Your task to perform on an android device: turn off notifications in google photos Image 0: 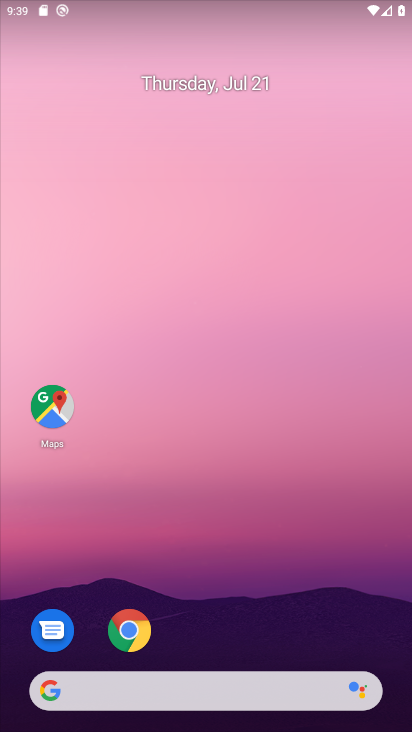
Step 0: drag from (262, 611) to (311, 2)
Your task to perform on an android device: turn off notifications in google photos Image 1: 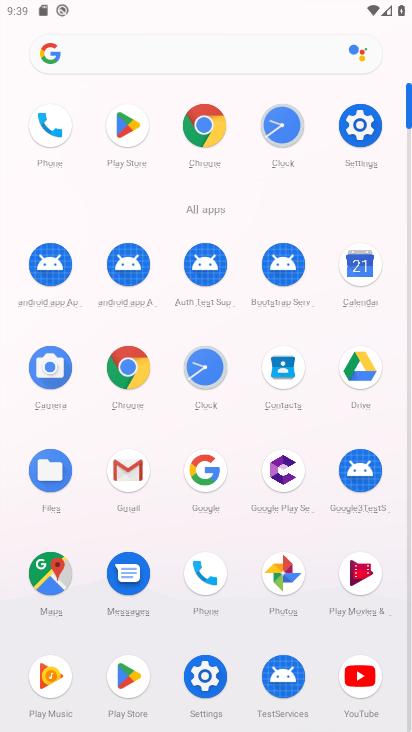
Step 1: click (291, 572)
Your task to perform on an android device: turn off notifications in google photos Image 2: 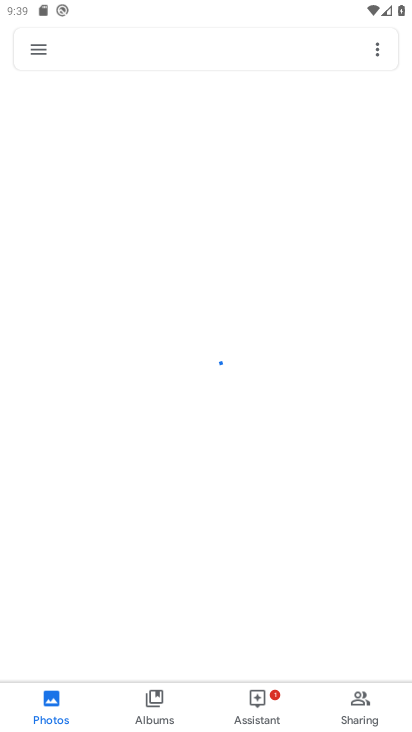
Step 2: click (41, 45)
Your task to perform on an android device: turn off notifications in google photos Image 3: 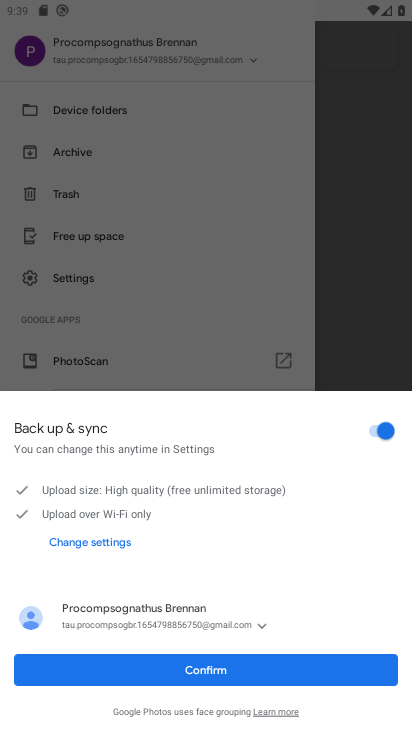
Step 3: click (214, 658)
Your task to perform on an android device: turn off notifications in google photos Image 4: 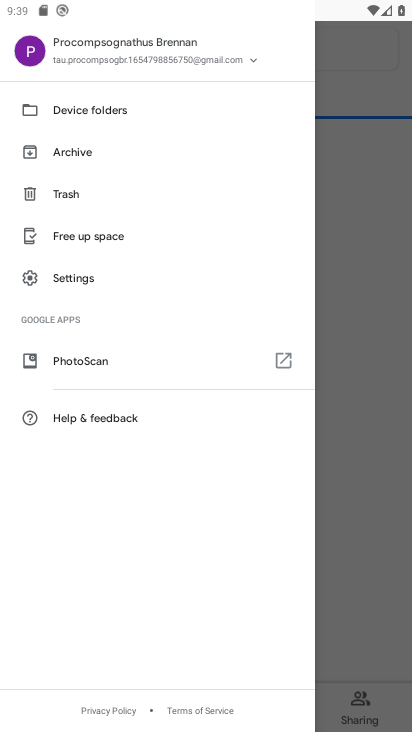
Step 4: click (122, 279)
Your task to perform on an android device: turn off notifications in google photos Image 5: 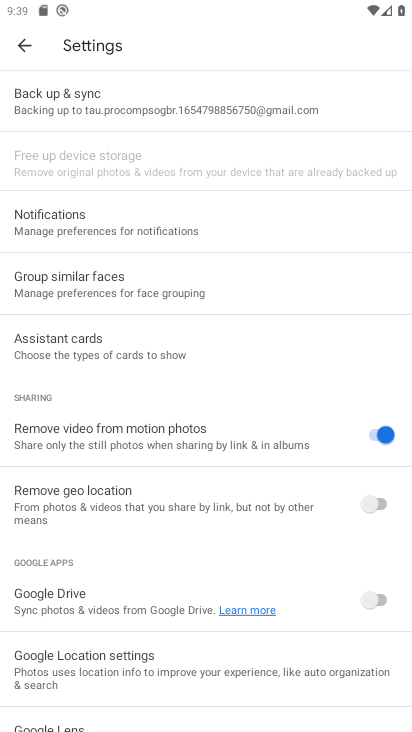
Step 5: click (159, 220)
Your task to perform on an android device: turn off notifications in google photos Image 6: 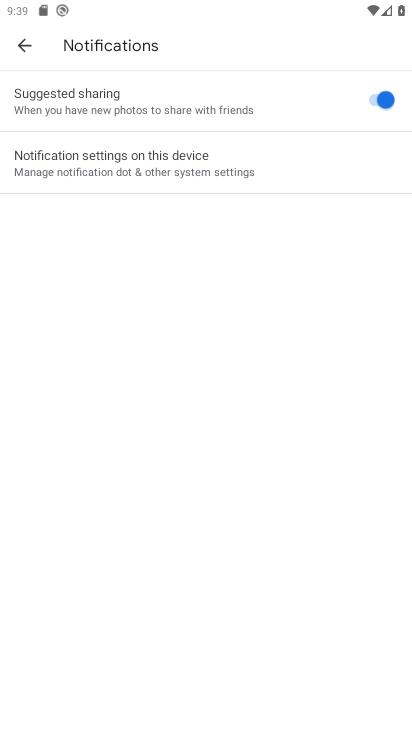
Step 6: click (172, 177)
Your task to perform on an android device: turn off notifications in google photos Image 7: 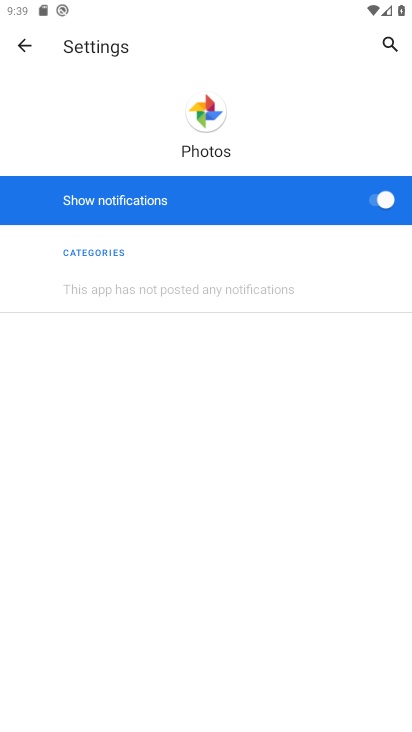
Step 7: click (383, 196)
Your task to perform on an android device: turn off notifications in google photos Image 8: 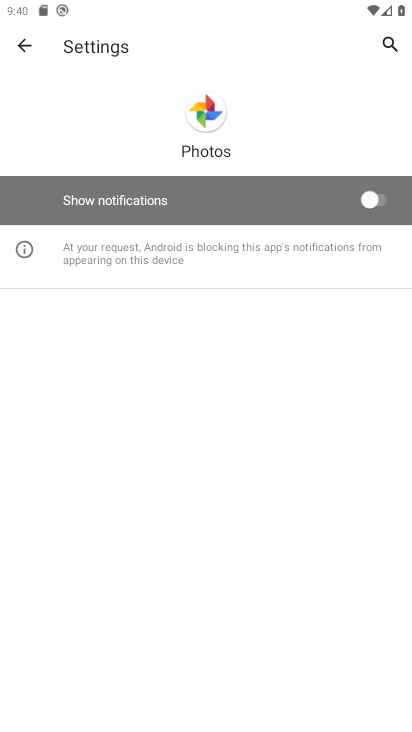
Step 8: task complete